Your task to perform on an android device: Search for Italian restaurants on Maps Image 0: 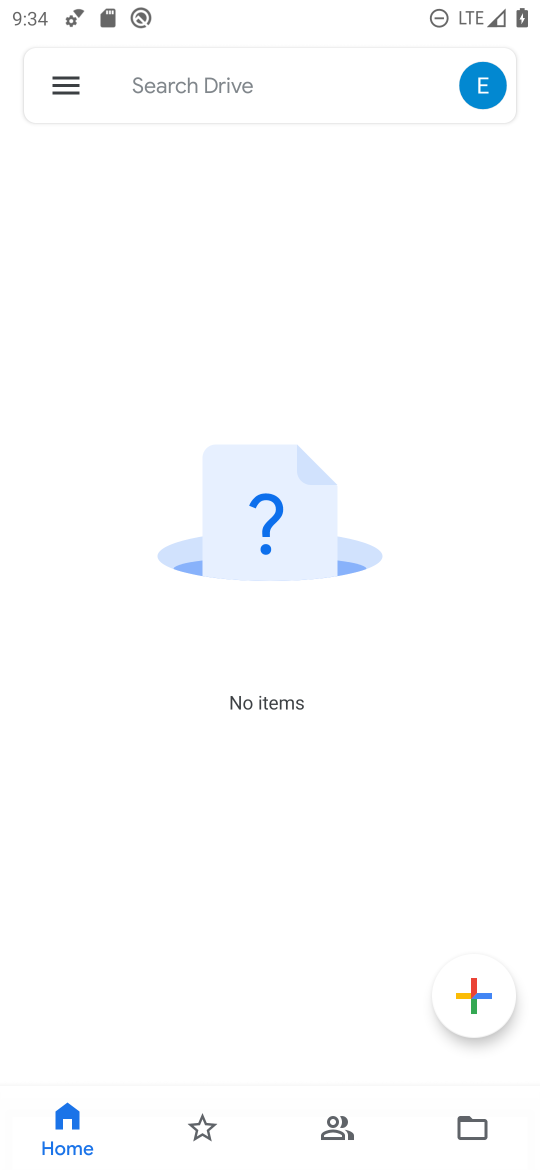
Step 0: press home button
Your task to perform on an android device: Search for Italian restaurants on Maps Image 1: 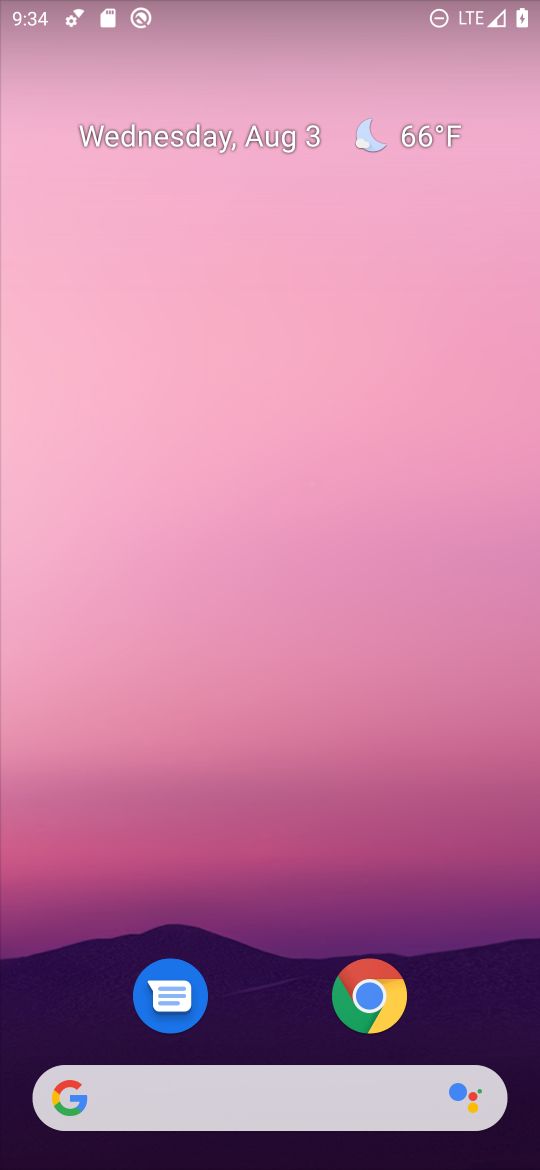
Step 1: drag from (295, 912) to (281, 45)
Your task to perform on an android device: Search for Italian restaurants on Maps Image 2: 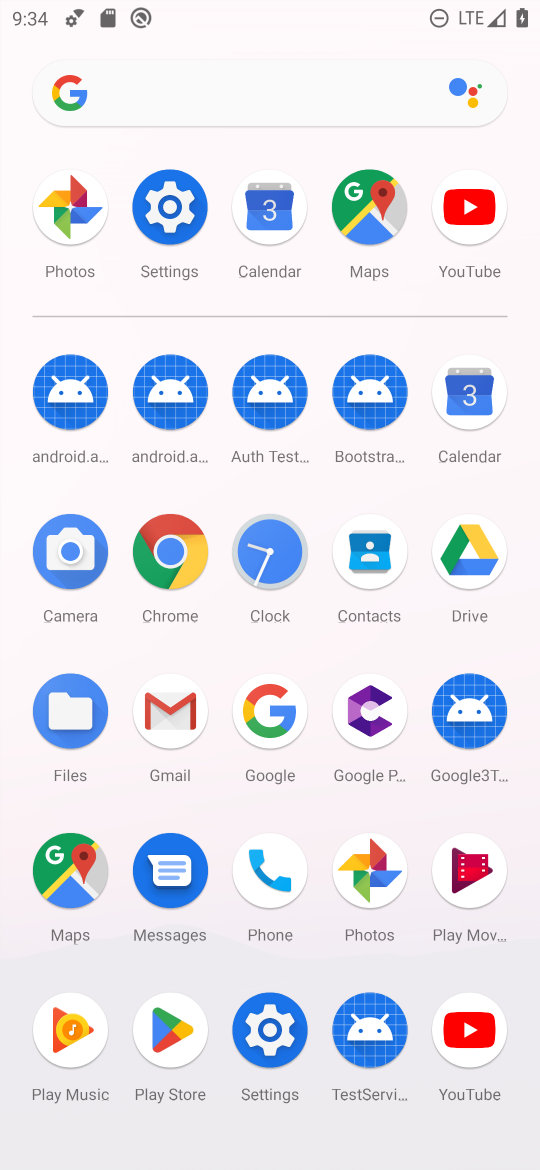
Step 2: click (360, 195)
Your task to perform on an android device: Search for Italian restaurants on Maps Image 3: 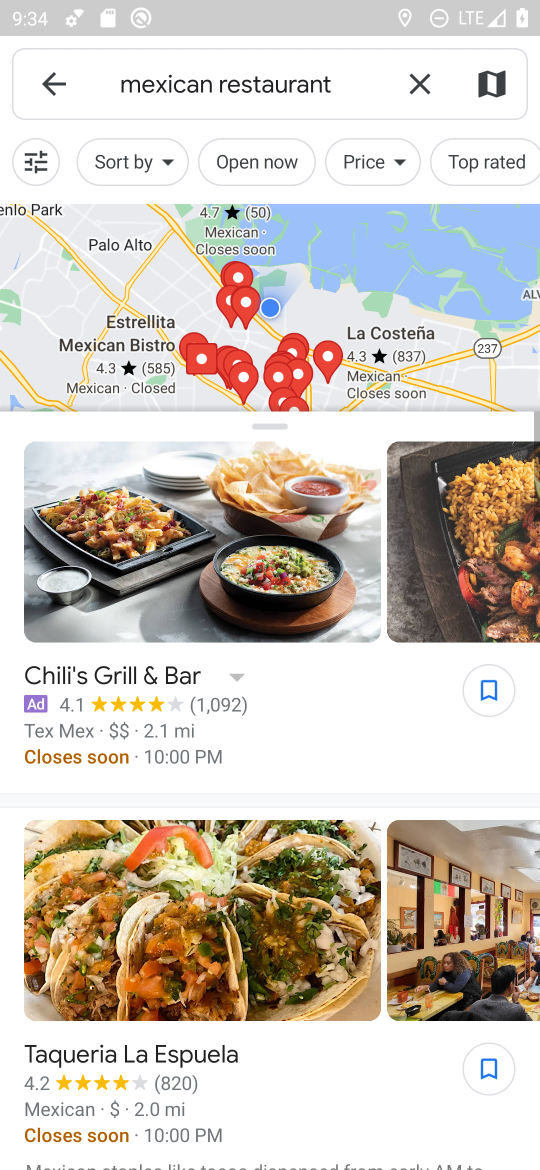
Step 3: click (412, 65)
Your task to perform on an android device: Search for Italian restaurants on Maps Image 4: 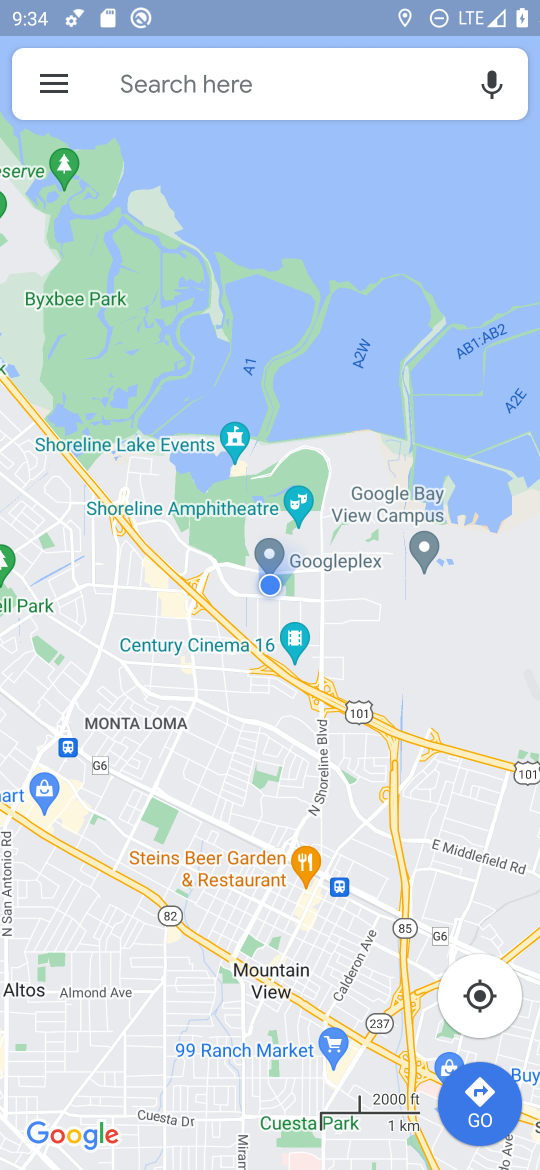
Step 4: click (327, 80)
Your task to perform on an android device: Search for Italian restaurants on Maps Image 5: 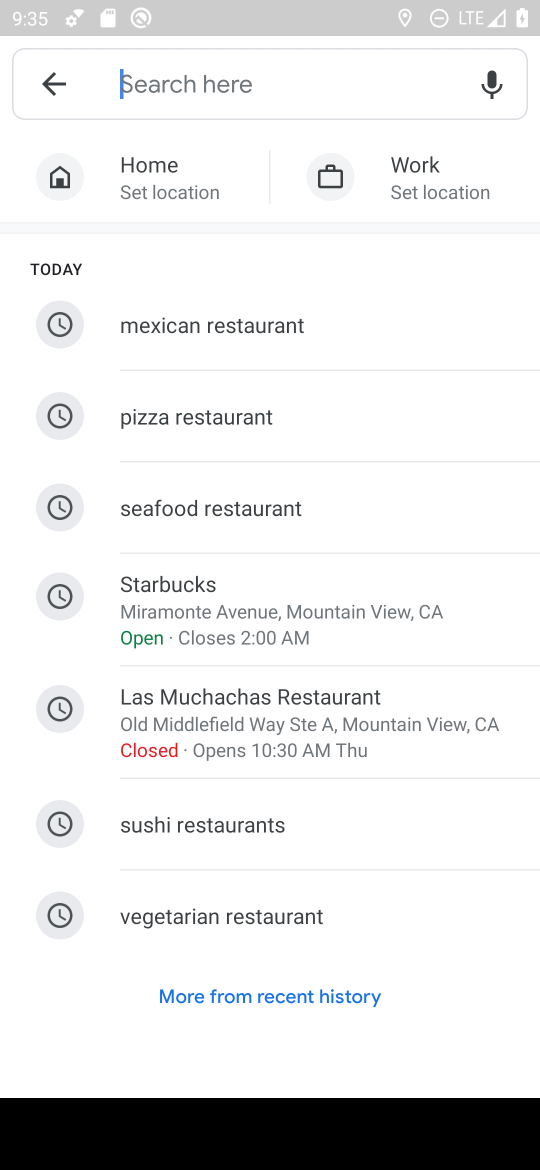
Step 5: type "italian restaurants"
Your task to perform on an android device: Search for Italian restaurants on Maps Image 6: 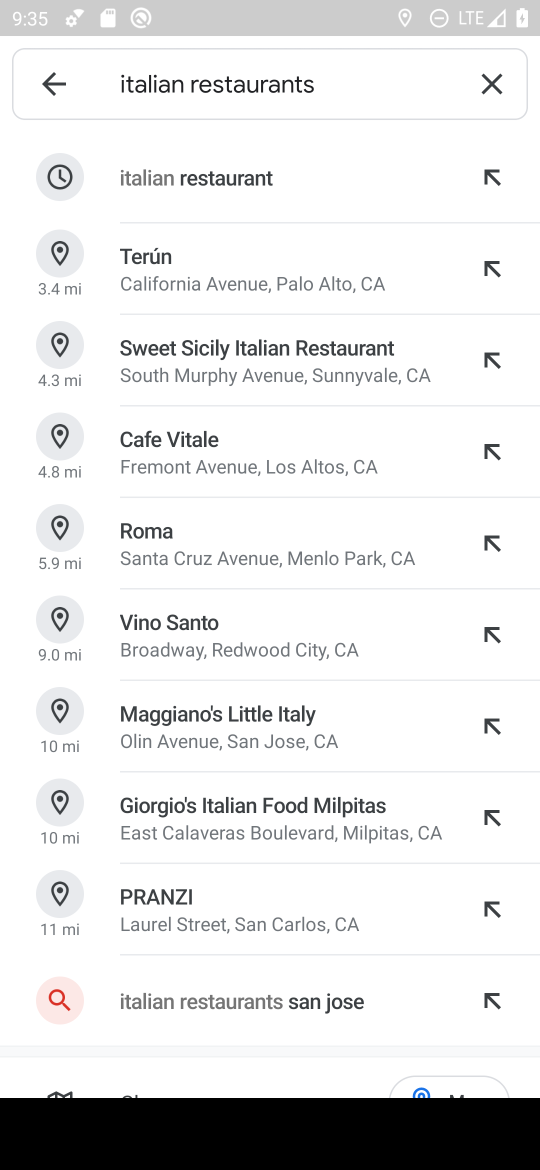
Step 6: click (261, 179)
Your task to perform on an android device: Search for Italian restaurants on Maps Image 7: 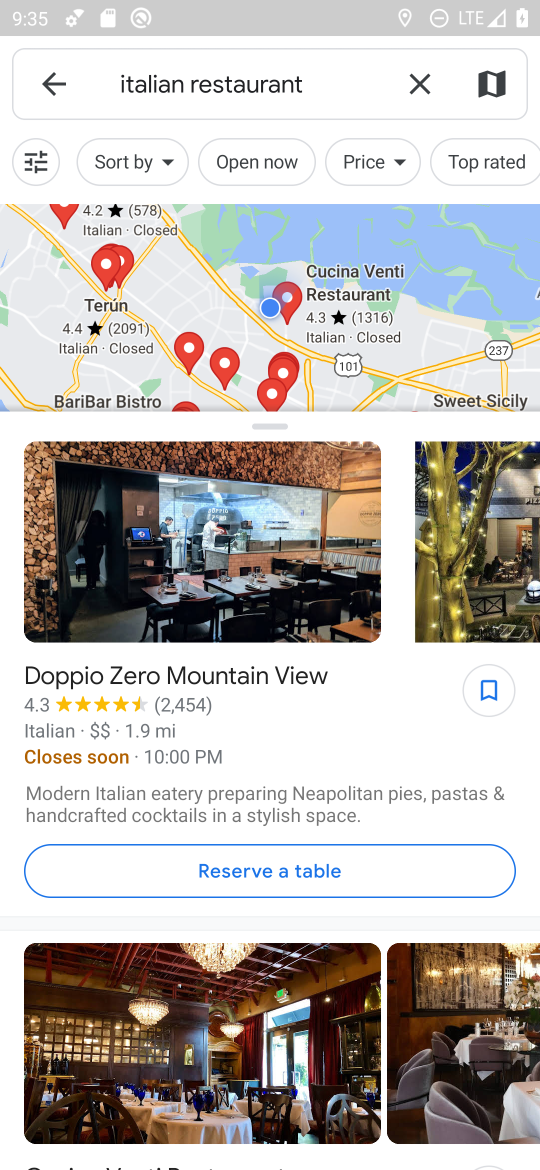
Step 7: task complete